Your task to perform on an android device: Find coffee shops on Maps Image 0: 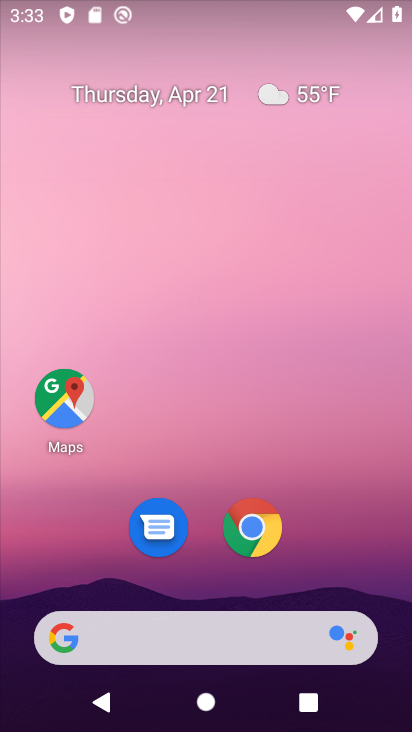
Step 0: drag from (339, 543) to (282, 150)
Your task to perform on an android device: Find coffee shops on Maps Image 1: 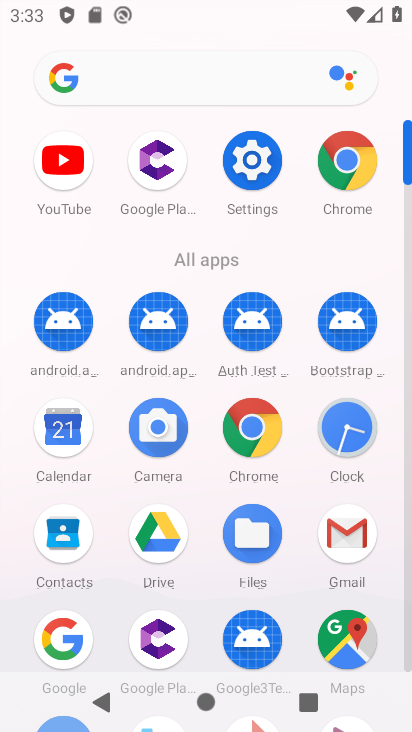
Step 1: click (346, 641)
Your task to perform on an android device: Find coffee shops on Maps Image 2: 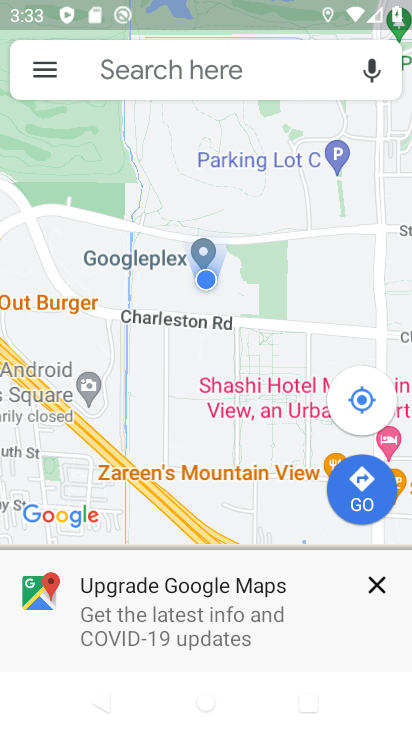
Step 2: click (219, 62)
Your task to perform on an android device: Find coffee shops on Maps Image 3: 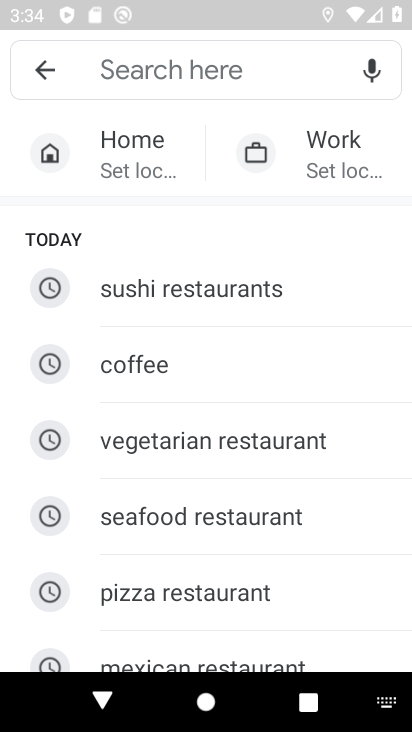
Step 3: type "coffee shops"
Your task to perform on an android device: Find coffee shops on Maps Image 4: 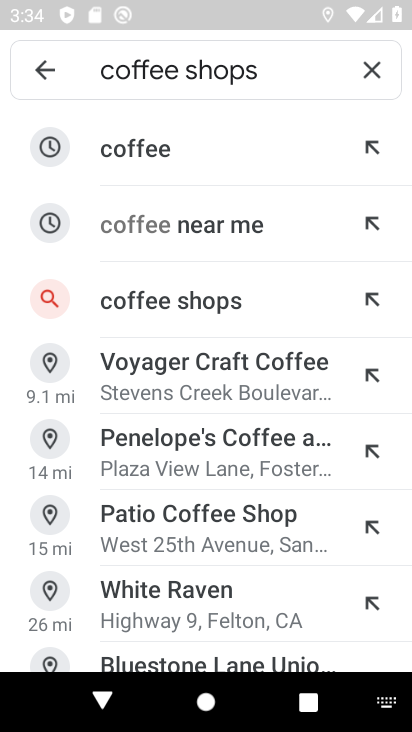
Step 4: click (265, 299)
Your task to perform on an android device: Find coffee shops on Maps Image 5: 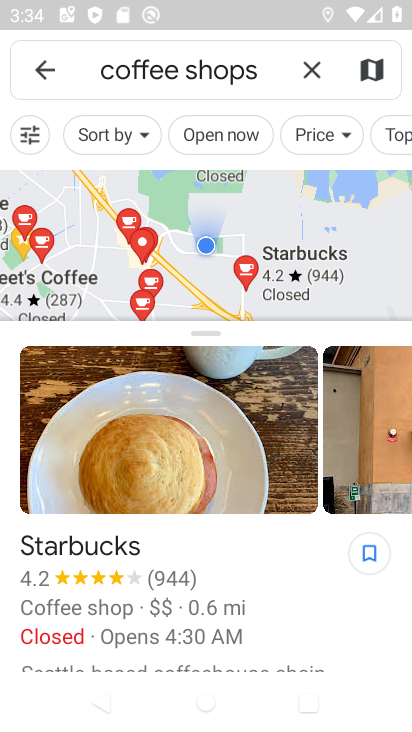
Step 5: task complete